Your task to perform on an android device: What's on my calendar today? Image 0: 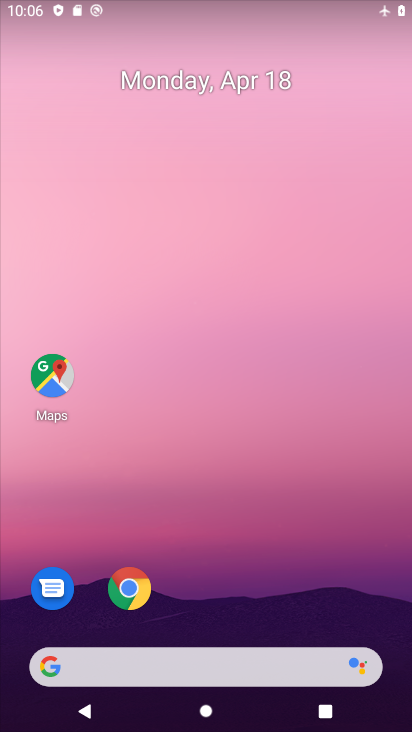
Step 0: drag from (256, 598) to (343, 29)
Your task to perform on an android device: What's on my calendar today? Image 1: 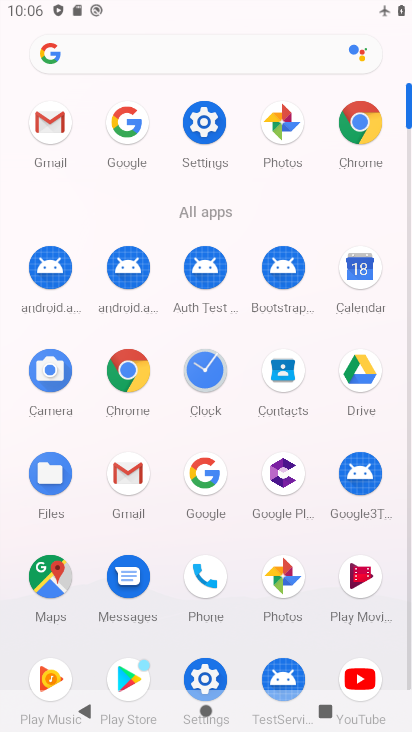
Step 1: click (363, 252)
Your task to perform on an android device: What's on my calendar today? Image 2: 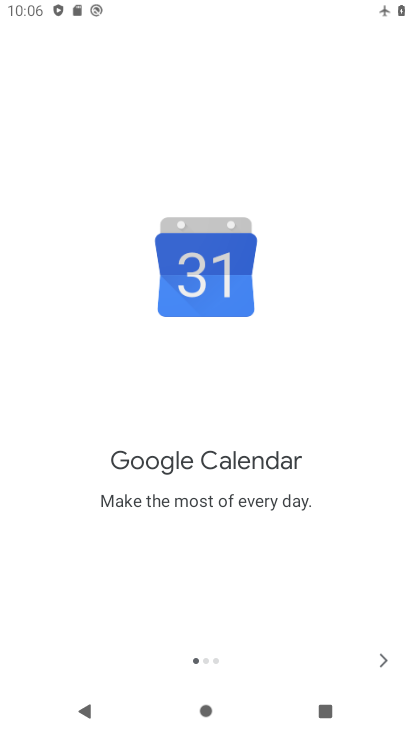
Step 2: click (384, 657)
Your task to perform on an android device: What's on my calendar today? Image 3: 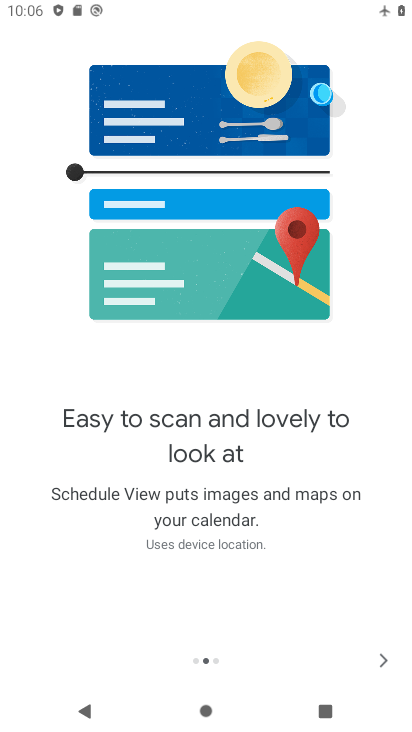
Step 3: click (381, 650)
Your task to perform on an android device: What's on my calendar today? Image 4: 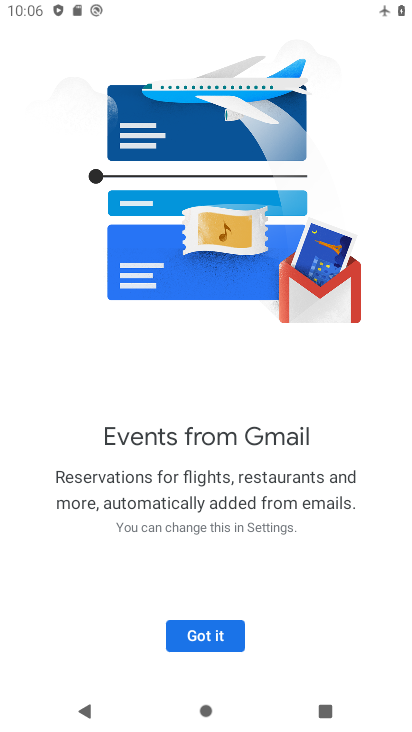
Step 4: click (235, 634)
Your task to perform on an android device: What's on my calendar today? Image 5: 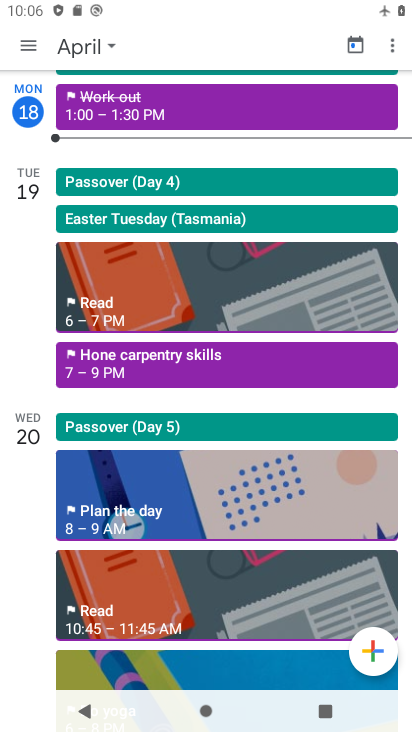
Step 5: click (90, 47)
Your task to perform on an android device: What's on my calendar today? Image 6: 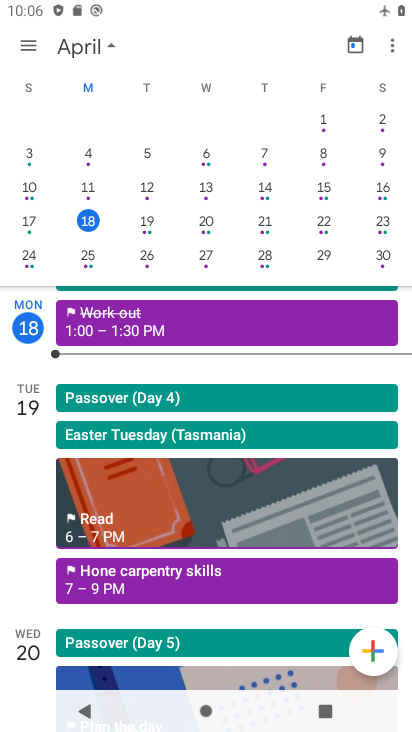
Step 6: click (134, 224)
Your task to perform on an android device: What's on my calendar today? Image 7: 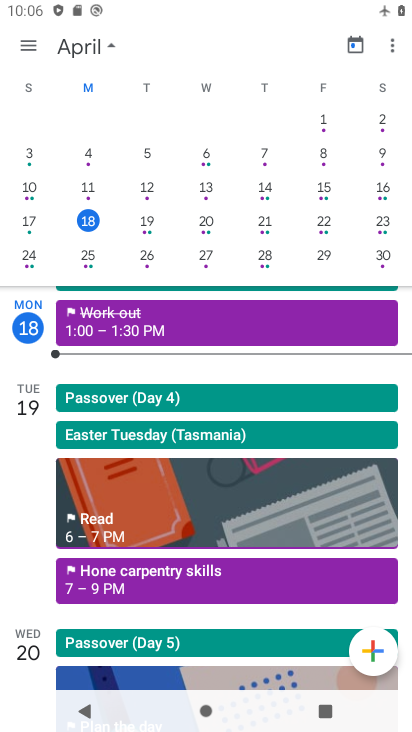
Step 7: click (143, 224)
Your task to perform on an android device: What's on my calendar today? Image 8: 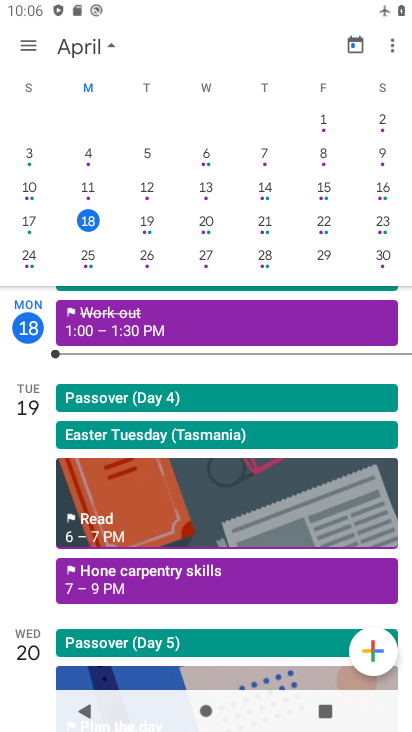
Step 8: click (155, 231)
Your task to perform on an android device: What's on my calendar today? Image 9: 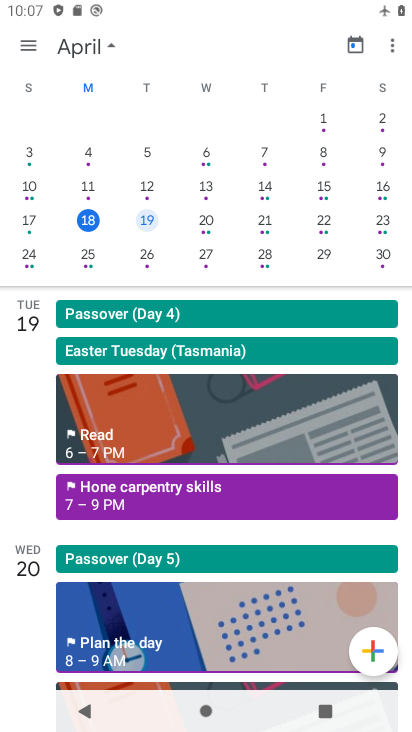
Step 9: task complete